Your task to perform on an android device: Open settings Image 0: 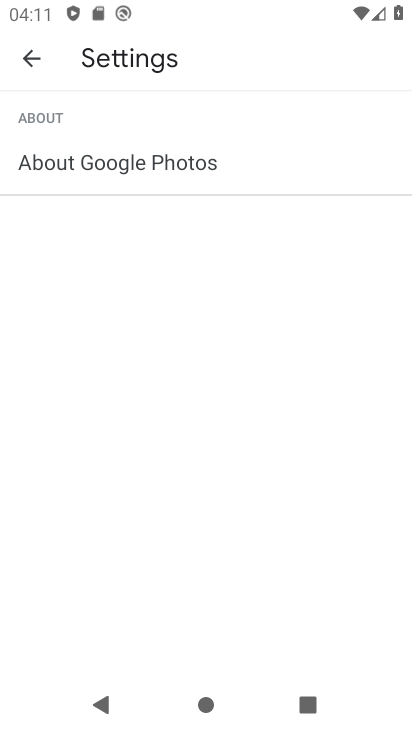
Step 0: press home button
Your task to perform on an android device: Open settings Image 1: 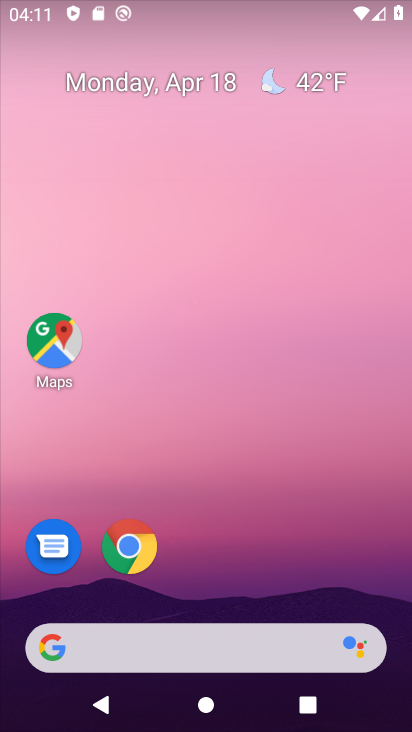
Step 1: drag from (193, 477) to (191, 308)
Your task to perform on an android device: Open settings Image 2: 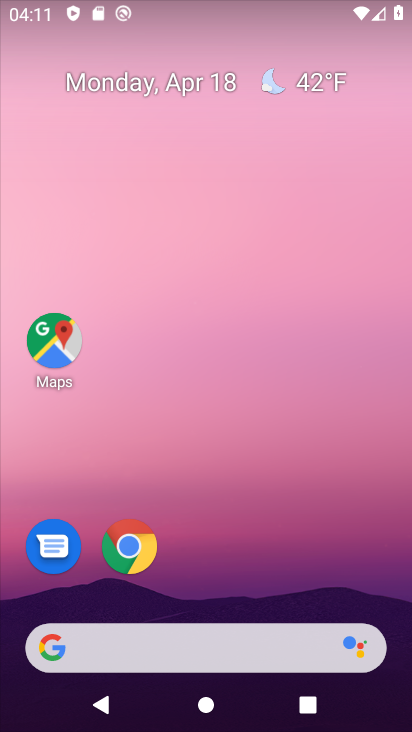
Step 2: drag from (232, 637) to (224, 369)
Your task to perform on an android device: Open settings Image 3: 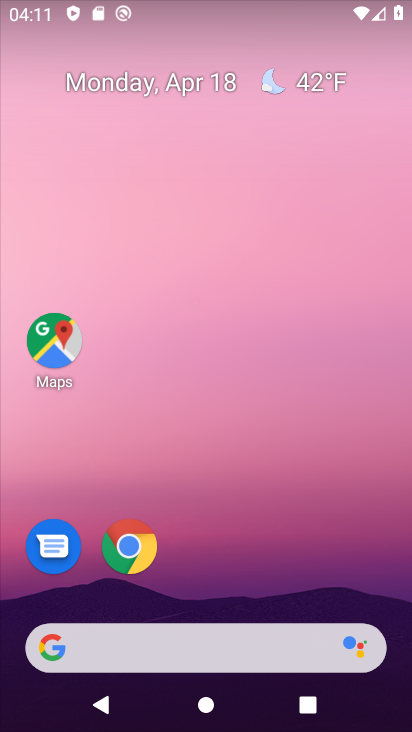
Step 3: drag from (234, 413) to (234, 289)
Your task to perform on an android device: Open settings Image 4: 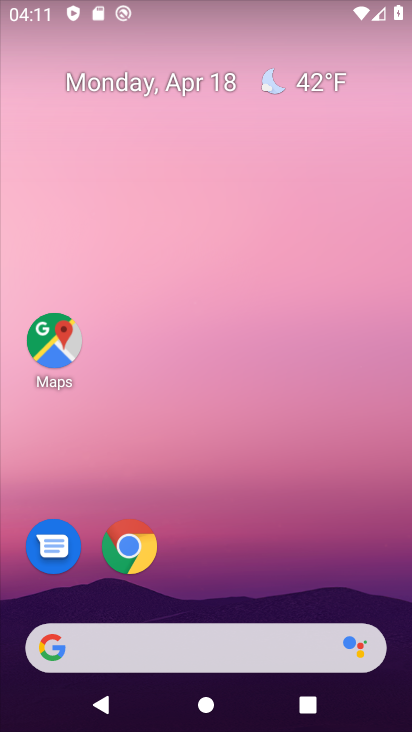
Step 4: drag from (264, 648) to (289, 304)
Your task to perform on an android device: Open settings Image 5: 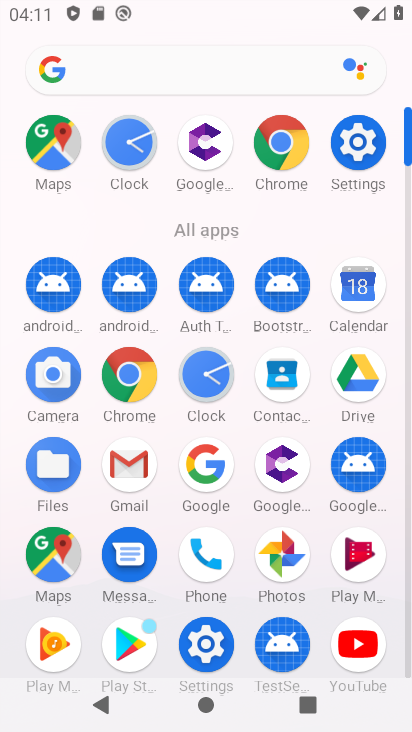
Step 5: click (369, 142)
Your task to perform on an android device: Open settings Image 6: 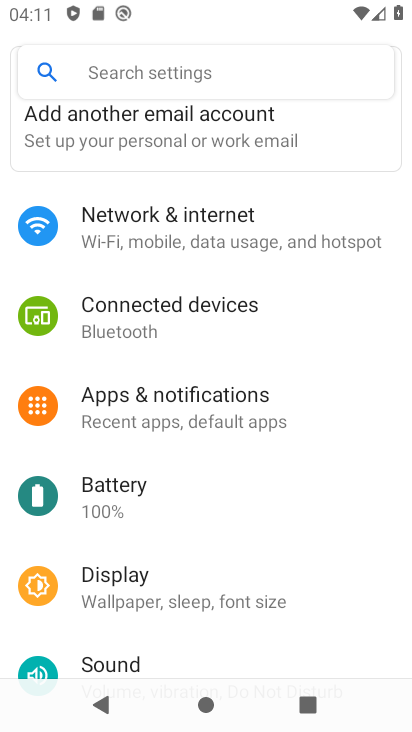
Step 6: task complete